Your task to perform on an android device: change notification settings in the gmail app Image 0: 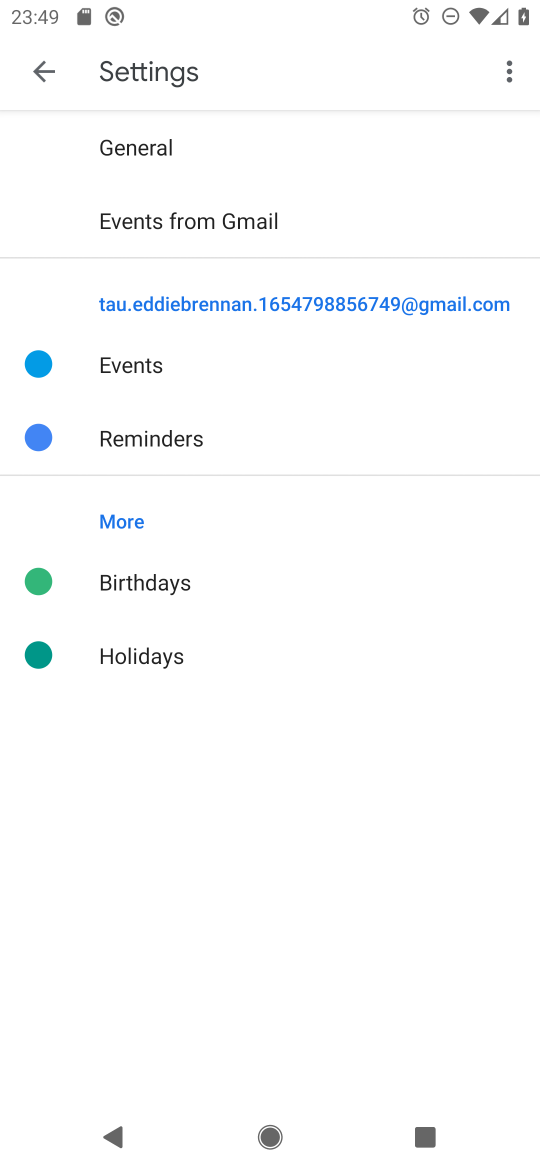
Step 0: press home button
Your task to perform on an android device: change notification settings in the gmail app Image 1: 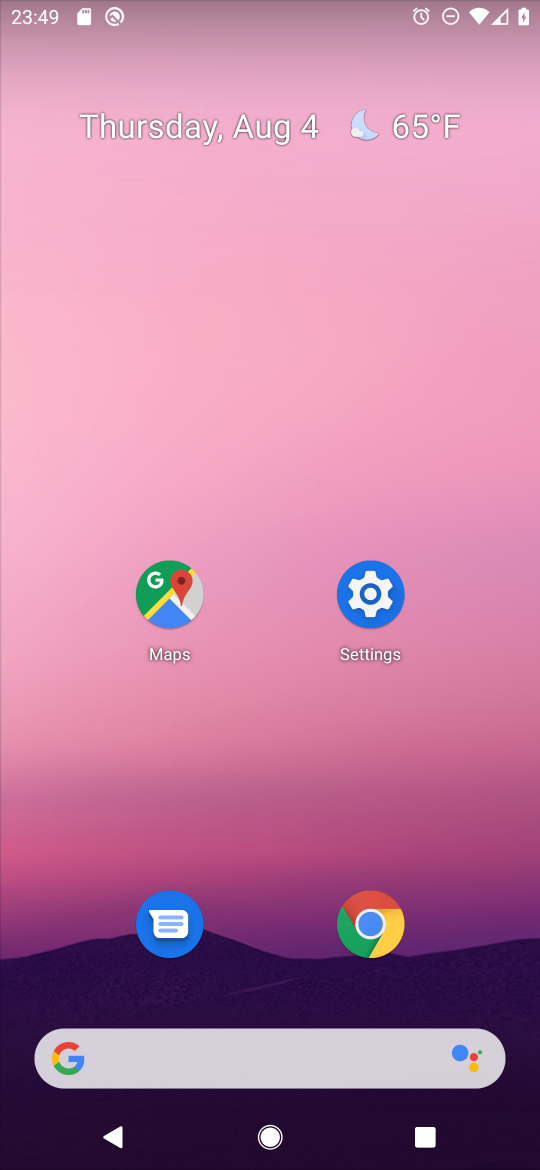
Step 1: drag from (289, 1068) to (365, 76)
Your task to perform on an android device: change notification settings in the gmail app Image 2: 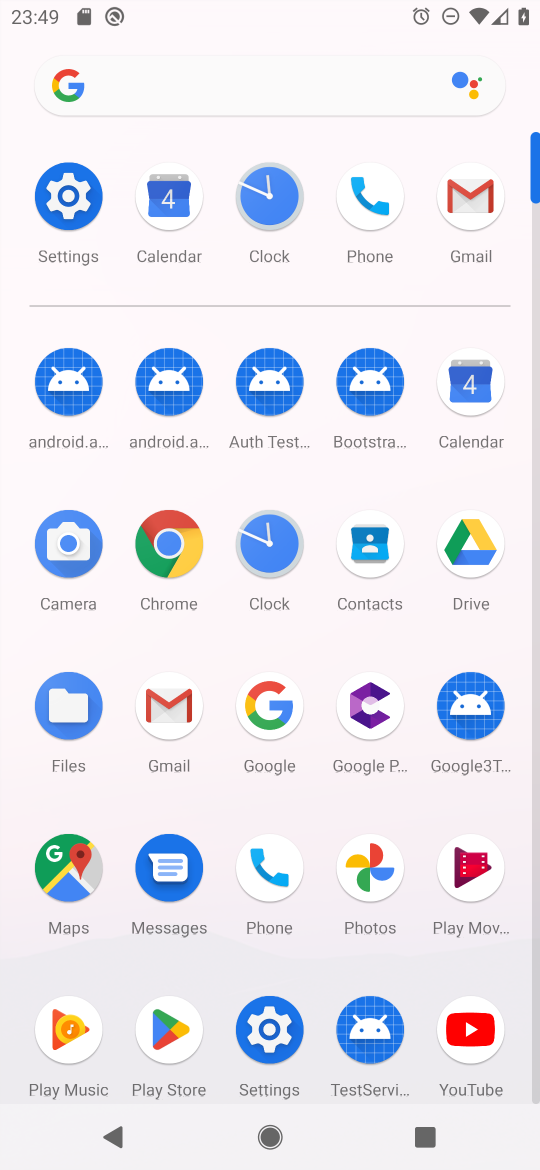
Step 2: click (471, 192)
Your task to perform on an android device: change notification settings in the gmail app Image 3: 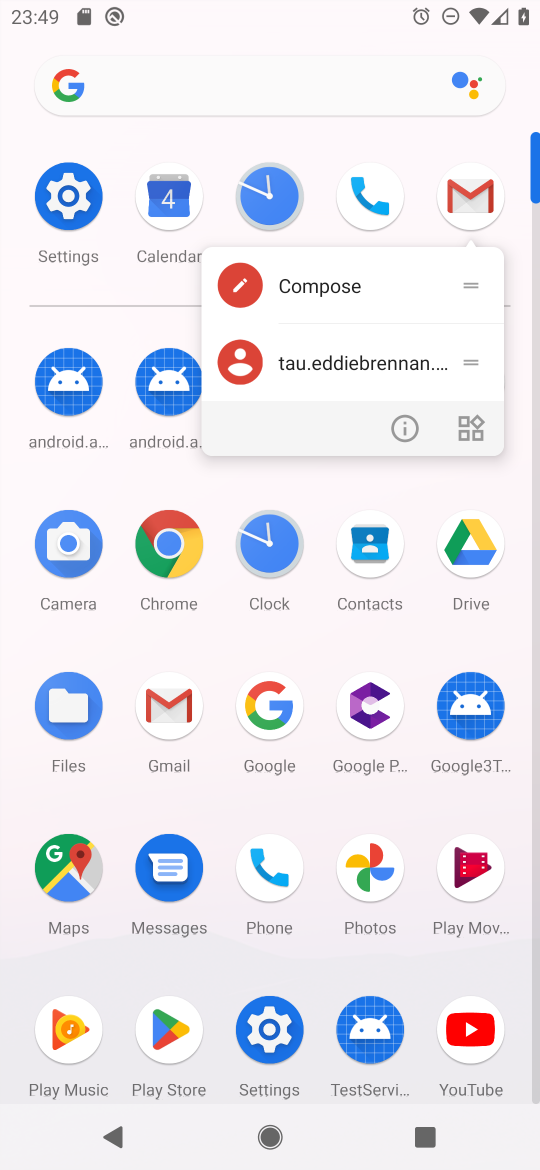
Step 3: click (471, 194)
Your task to perform on an android device: change notification settings in the gmail app Image 4: 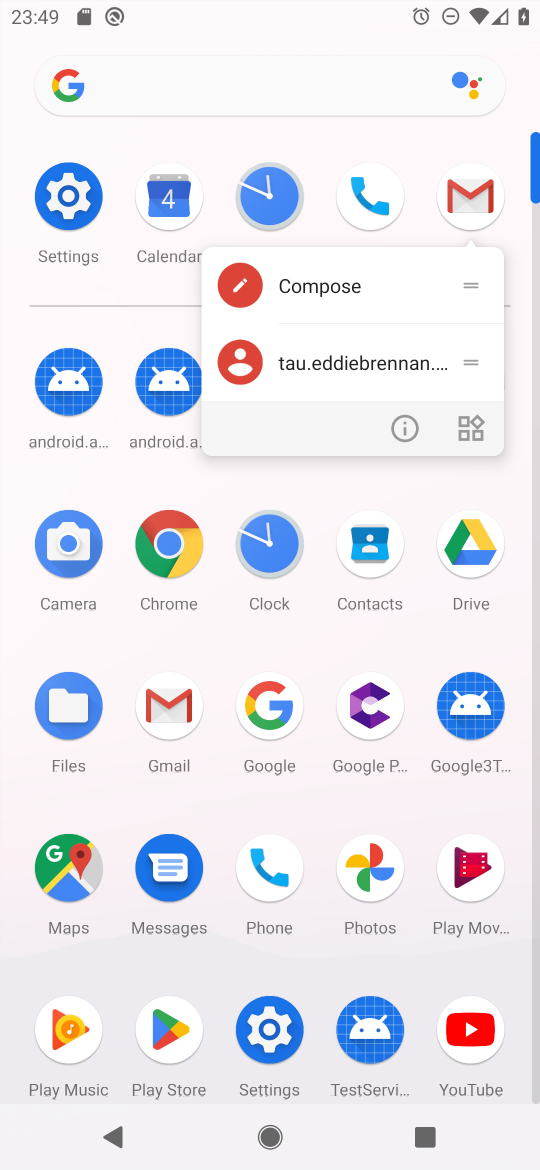
Step 4: click (471, 198)
Your task to perform on an android device: change notification settings in the gmail app Image 5: 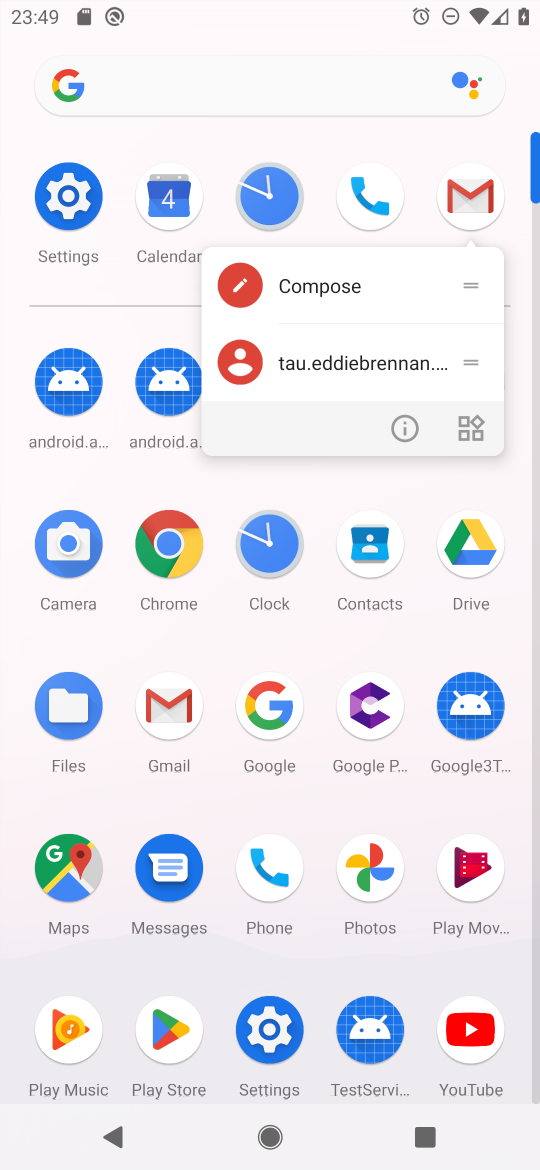
Step 5: click (488, 196)
Your task to perform on an android device: change notification settings in the gmail app Image 6: 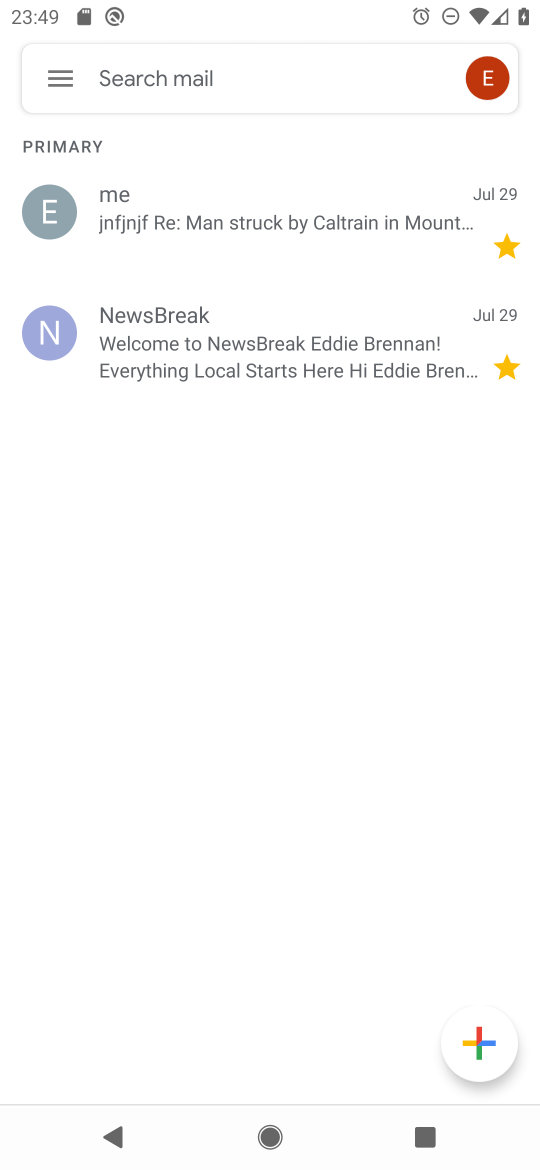
Step 6: click (61, 79)
Your task to perform on an android device: change notification settings in the gmail app Image 7: 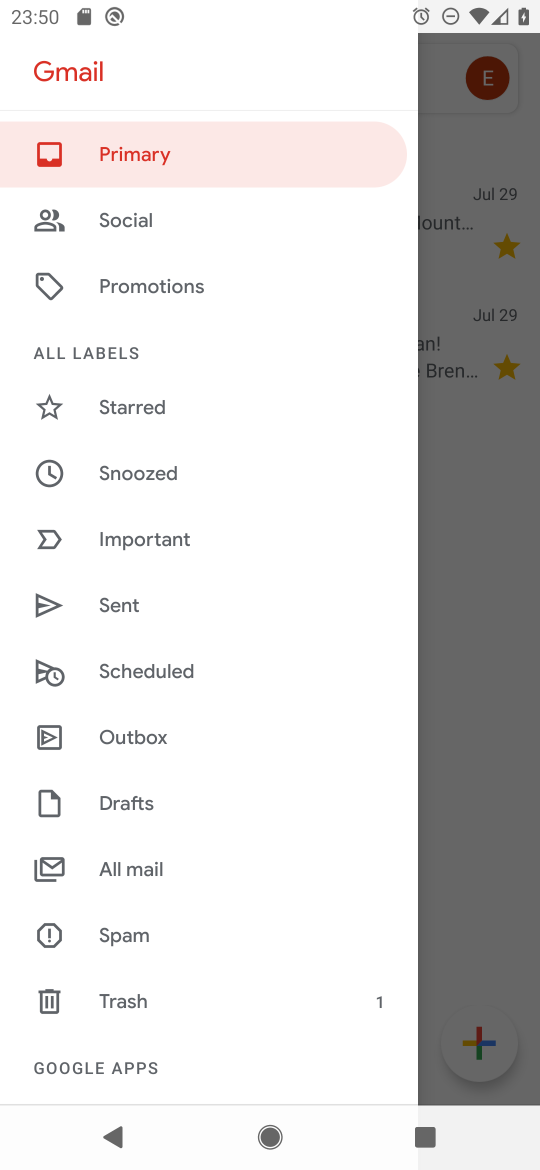
Step 7: drag from (254, 897) to (345, 263)
Your task to perform on an android device: change notification settings in the gmail app Image 8: 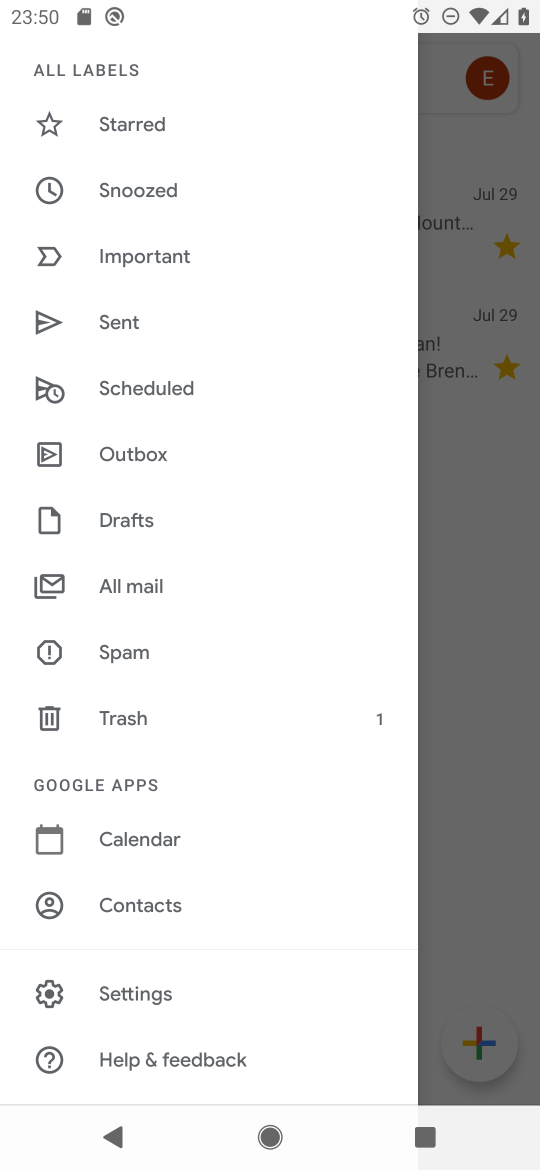
Step 8: click (118, 994)
Your task to perform on an android device: change notification settings in the gmail app Image 9: 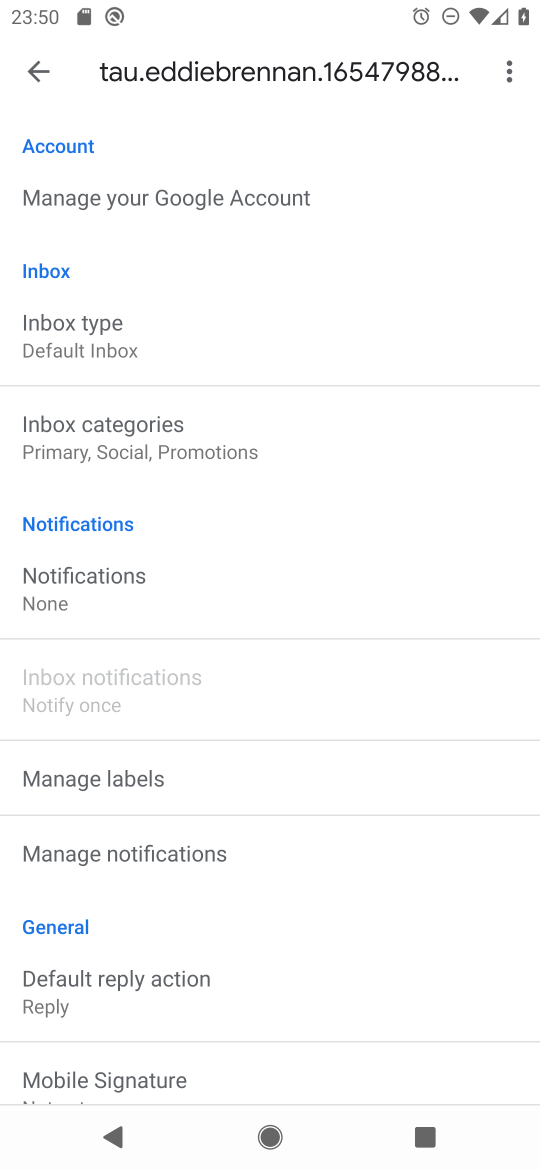
Step 9: click (69, 605)
Your task to perform on an android device: change notification settings in the gmail app Image 10: 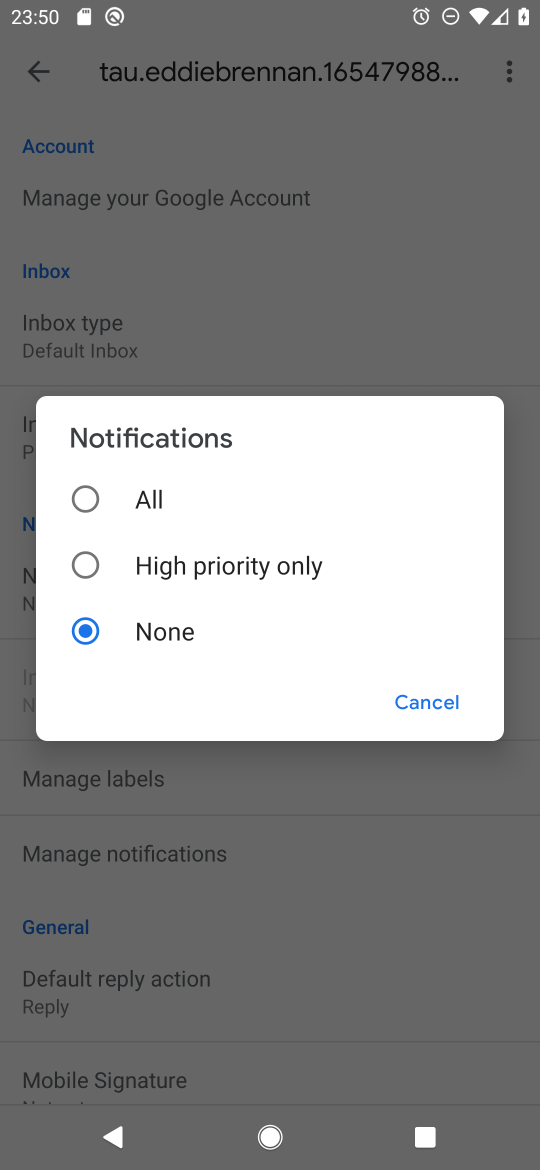
Step 10: click (93, 505)
Your task to perform on an android device: change notification settings in the gmail app Image 11: 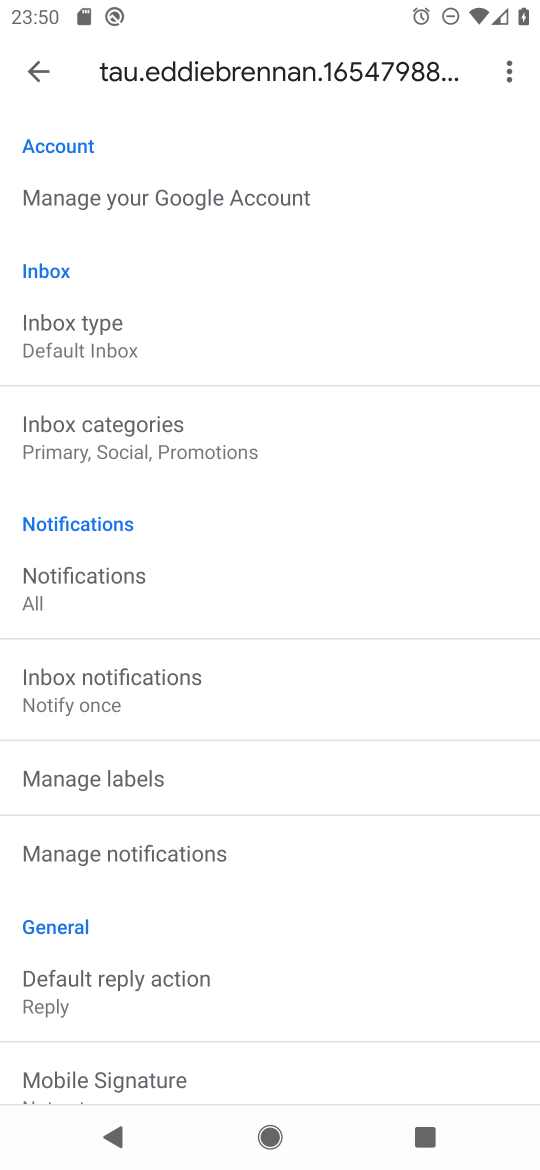
Step 11: task complete